Your task to perform on an android device: Is it going to rain today? Image 0: 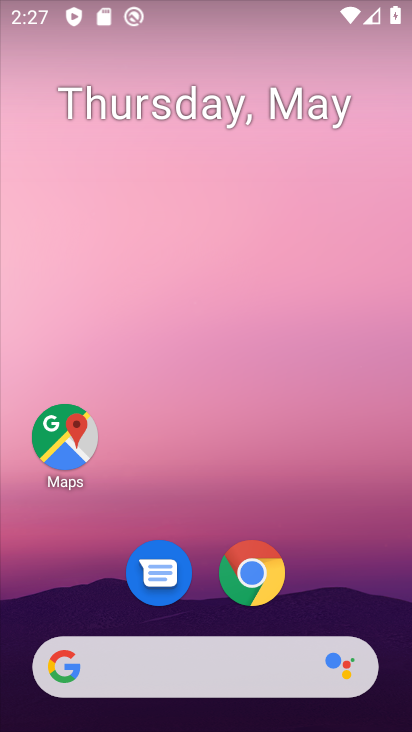
Step 0: click (279, 274)
Your task to perform on an android device: Is it going to rain today? Image 1: 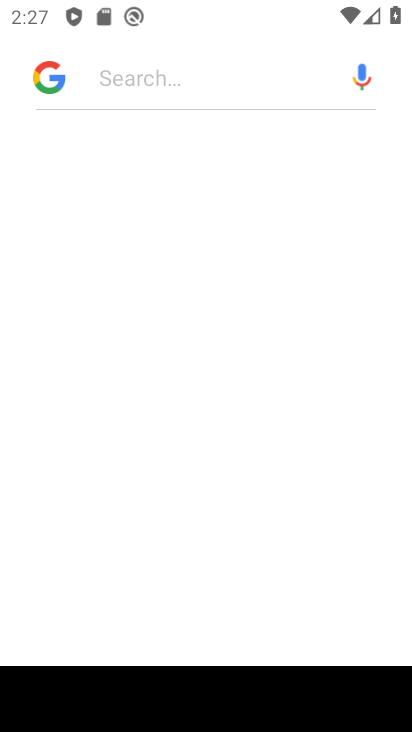
Step 1: click (131, 74)
Your task to perform on an android device: Is it going to rain today? Image 2: 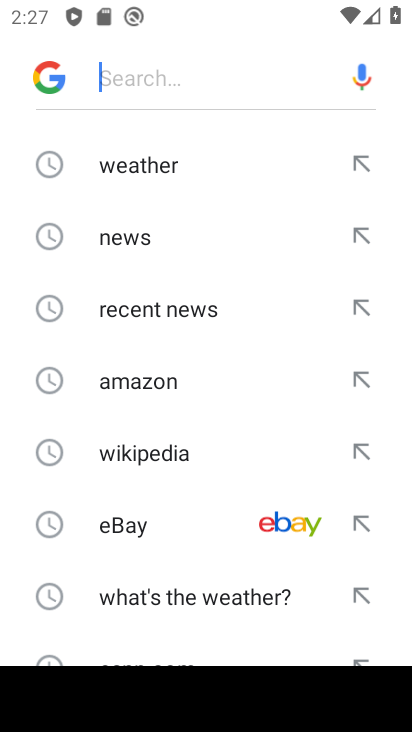
Step 2: type "is it going to rain today?"
Your task to perform on an android device: Is it going to rain today? Image 3: 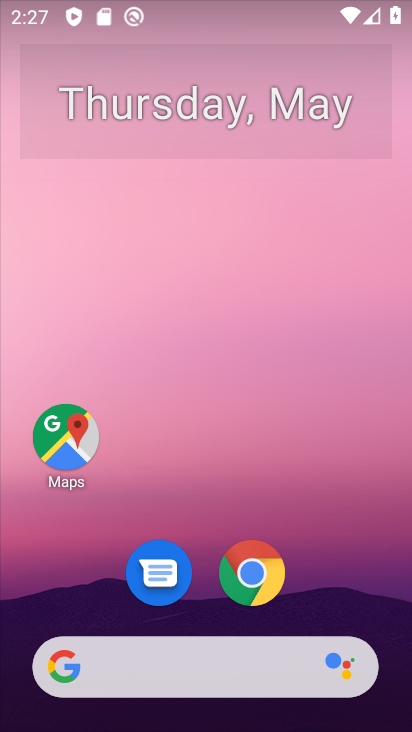
Step 3: drag from (141, 634) to (139, 182)
Your task to perform on an android device: Is it going to rain today? Image 4: 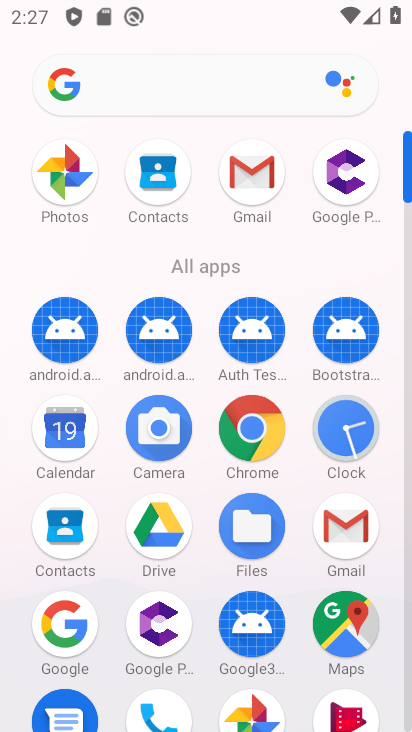
Step 4: click (68, 631)
Your task to perform on an android device: Is it going to rain today? Image 5: 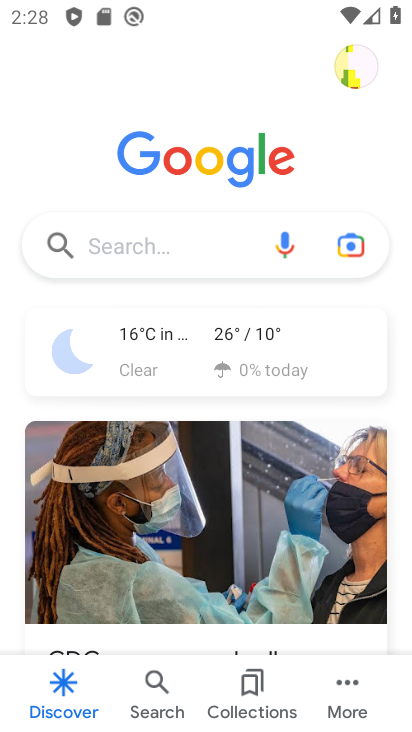
Step 5: click (145, 246)
Your task to perform on an android device: Is it going to rain today? Image 6: 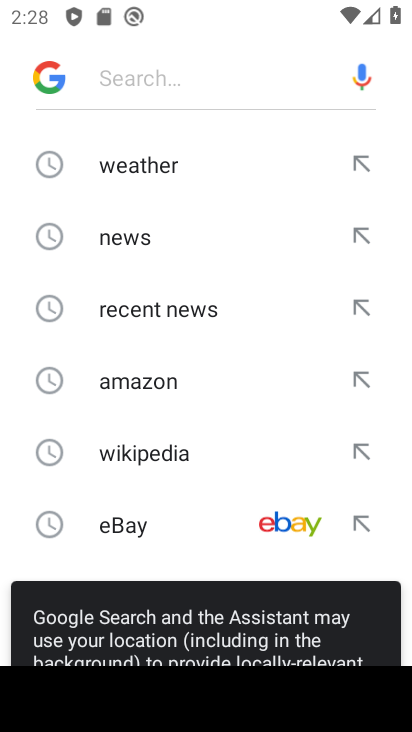
Step 6: drag from (147, 320) to (147, 129)
Your task to perform on an android device: Is it going to rain today? Image 7: 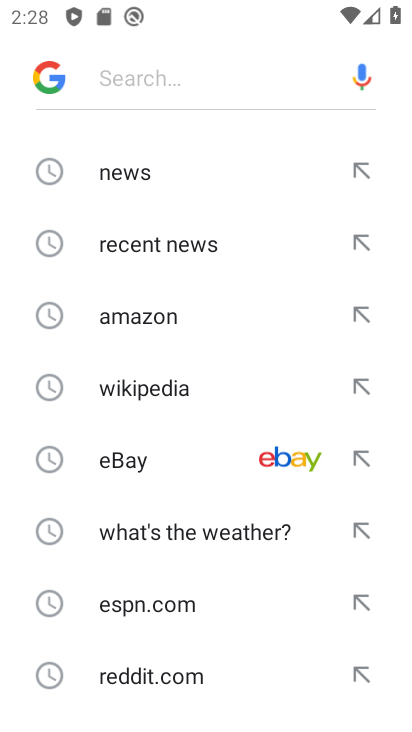
Step 7: drag from (180, 551) to (192, 211)
Your task to perform on an android device: Is it going to rain today? Image 8: 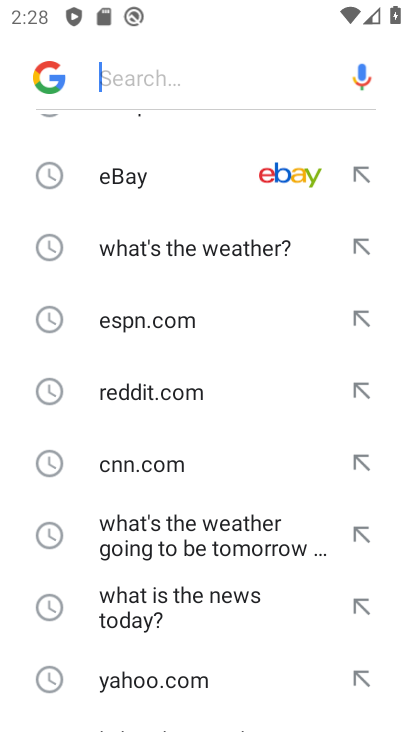
Step 8: drag from (167, 633) to (175, 300)
Your task to perform on an android device: Is it going to rain today? Image 9: 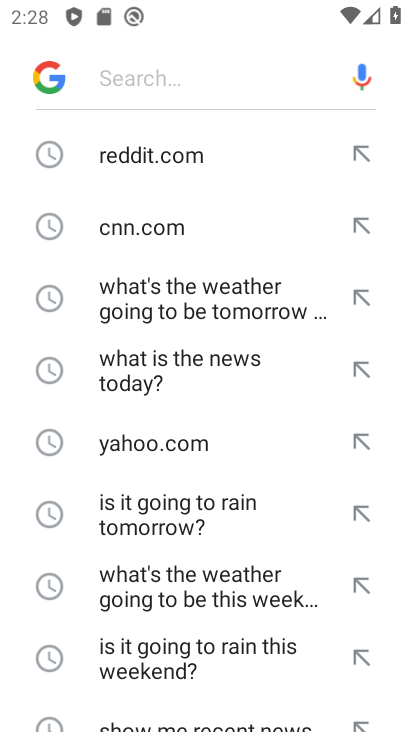
Step 9: drag from (181, 688) to (210, 417)
Your task to perform on an android device: Is it going to rain today? Image 10: 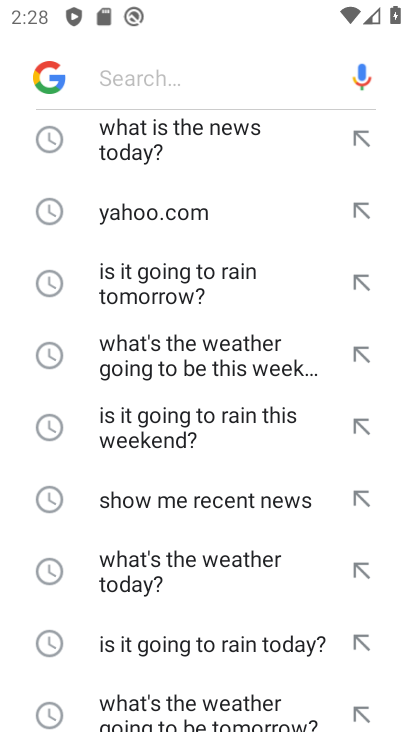
Step 10: click (180, 645)
Your task to perform on an android device: Is it going to rain today? Image 11: 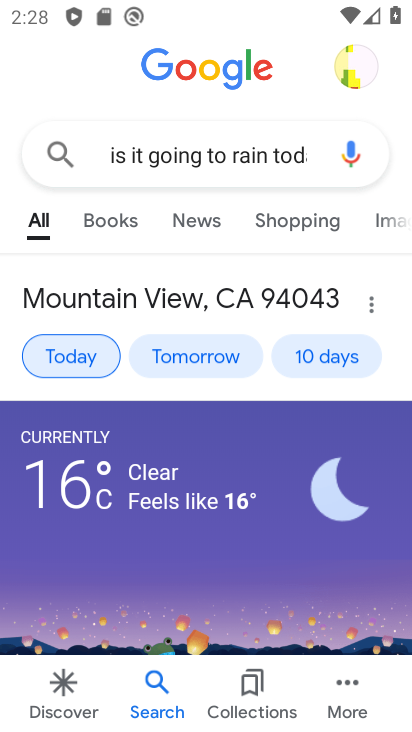
Step 11: task complete